Your task to perform on an android device: install app "Expedia: Hotels, Flights & Car" Image 0: 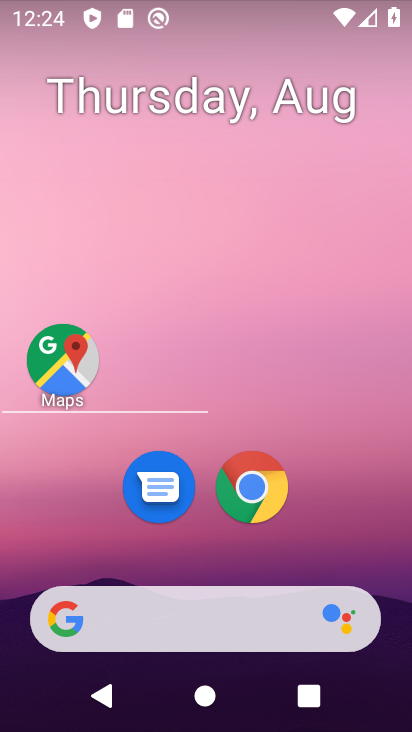
Step 0: drag from (211, 12) to (269, 6)
Your task to perform on an android device: install app "Expedia: Hotels, Flights & Car" Image 1: 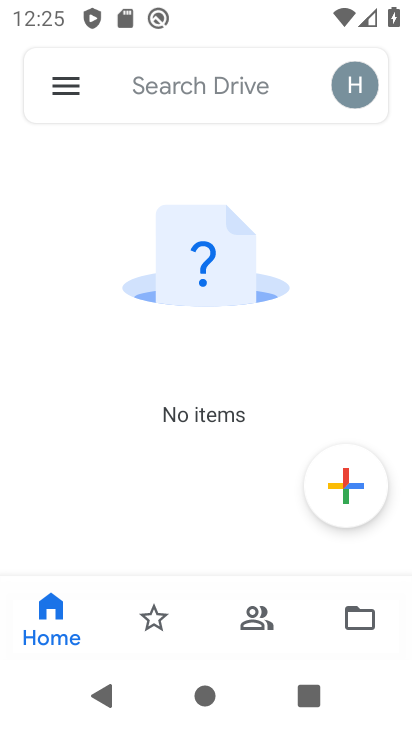
Step 1: press home button
Your task to perform on an android device: install app "Expedia: Hotels, Flights & Car" Image 2: 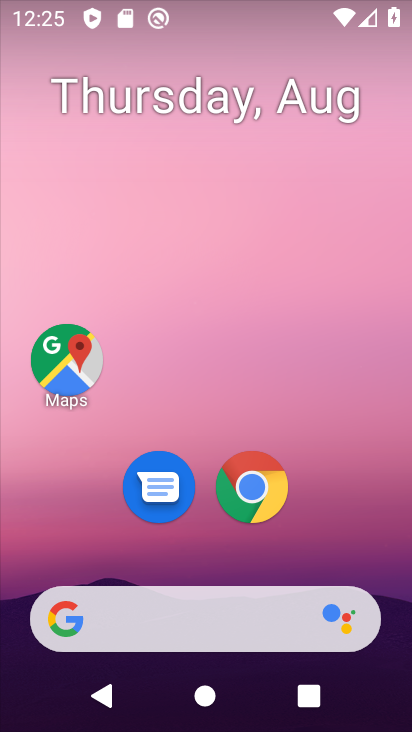
Step 2: drag from (205, 564) to (234, 0)
Your task to perform on an android device: install app "Expedia: Hotels, Flights & Car" Image 3: 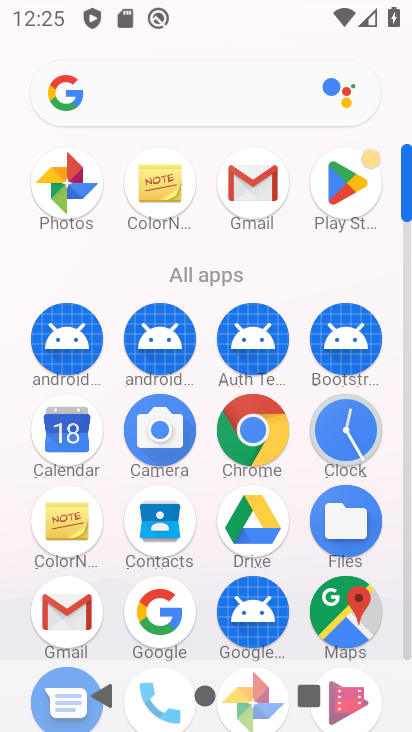
Step 3: click (347, 182)
Your task to perform on an android device: install app "Expedia: Hotels, Flights & Car" Image 4: 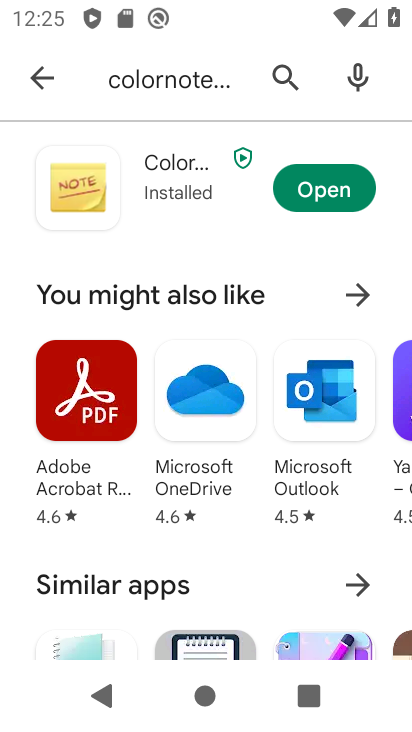
Step 4: click (275, 71)
Your task to perform on an android device: install app "Expedia: Hotels, Flights & Car" Image 5: 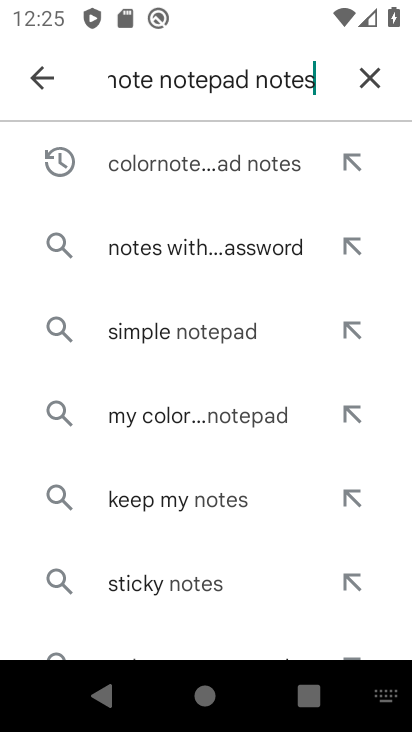
Step 5: click (195, 166)
Your task to perform on an android device: install app "Expedia: Hotels, Flights & Car" Image 6: 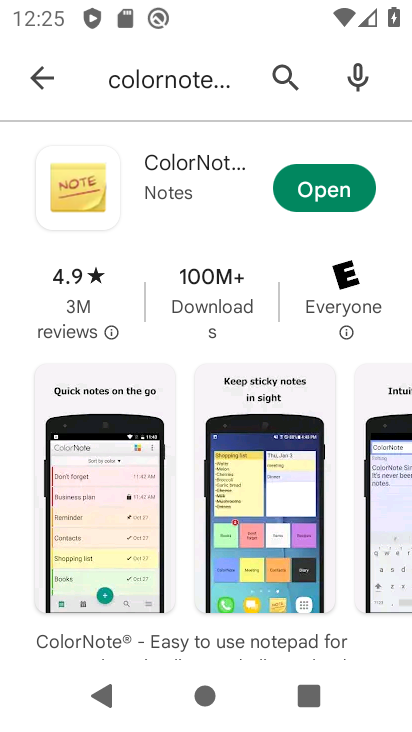
Step 6: click (296, 69)
Your task to perform on an android device: install app "Expedia: Hotels, Flights & Car" Image 7: 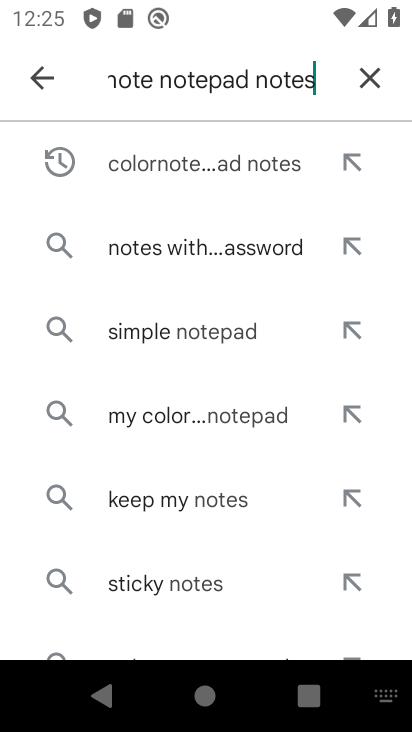
Step 7: click (358, 91)
Your task to perform on an android device: install app "Expedia: Hotels, Flights & Car" Image 8: 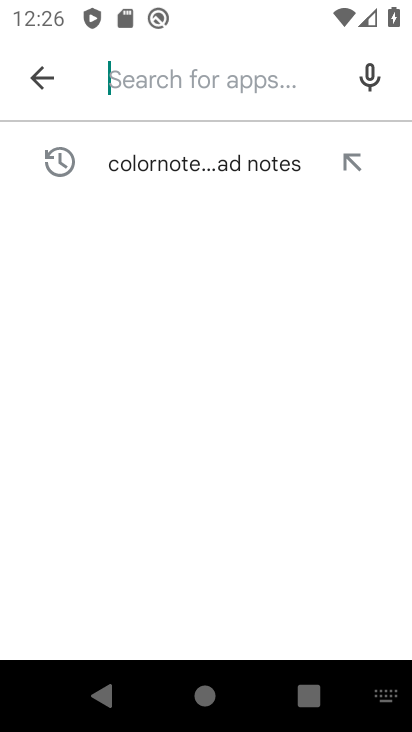
Step 8: type "Expedia: Hotels, Flights & Car"
Your task to perform on an android device: install app "Expedia: Hotels, Flights & Car" Image 9: 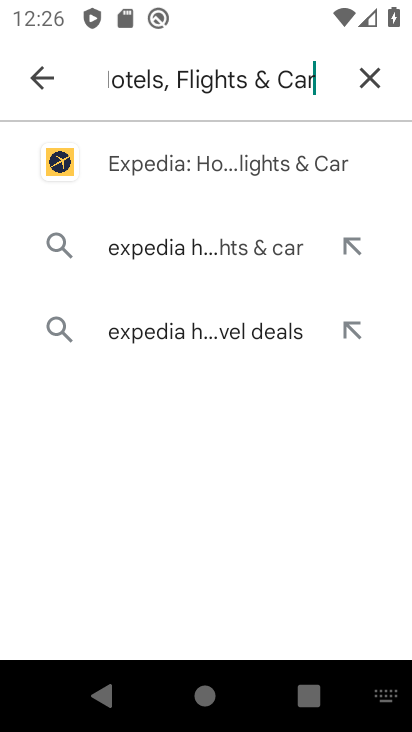
Step 9: click (218, 162)
Your task to perform on an android device: install app "Expedia: Hotels, Flights & Car" Image 10: 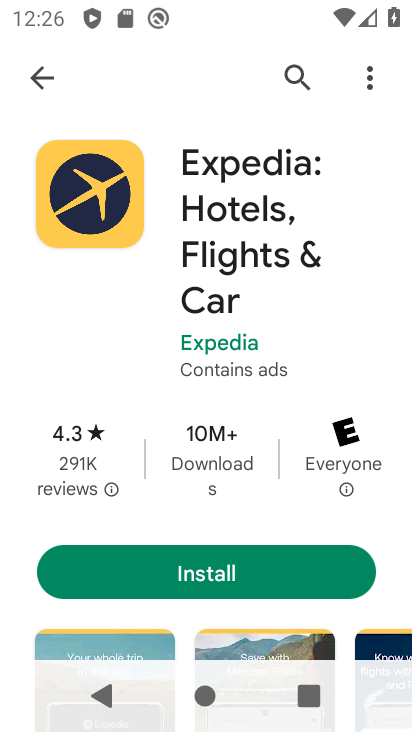
Step 10: click (214, 574)
Your task to perform on an android device: install app "Expedia: Hotels, Flights & Car" Image 11: 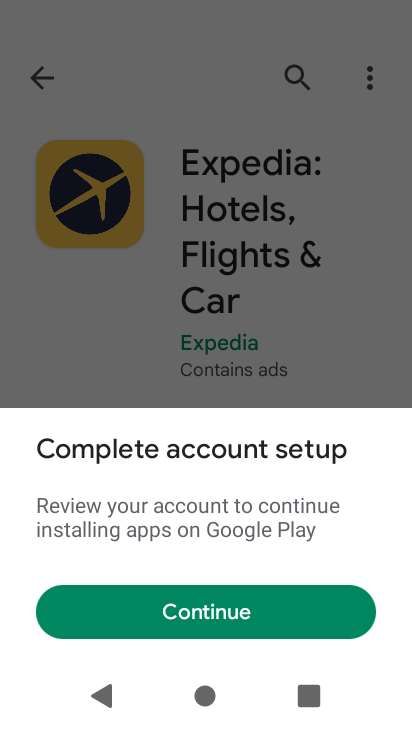
Step 11: click (211, 620)
Your task to perform on an android device: install app "Expedia: Hotels, Flights & Car" Image 12: 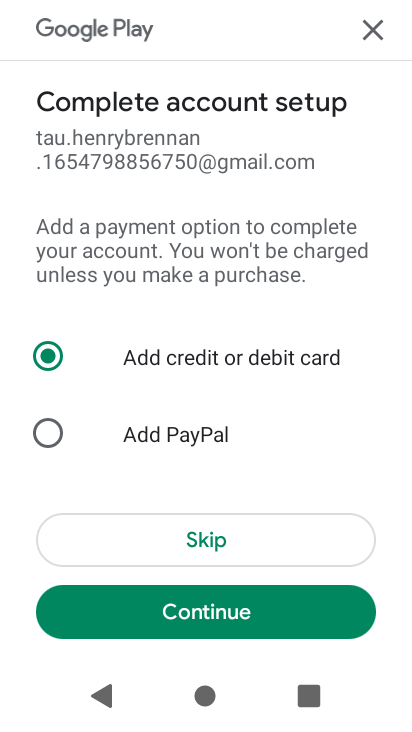
Step 12: click (207, 542)
Your task to perform on an android device: install app "Expedia: Hotels, Flights & Car" Image 13: 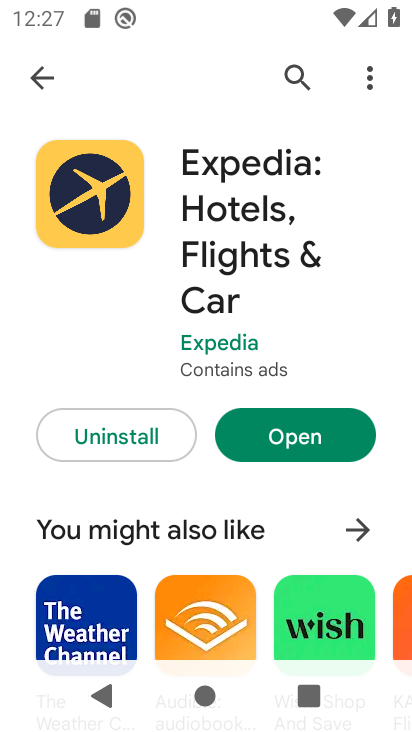
Step 13: click (252, 443)
Your task to perform on an android device: install app "Expedia: Hotels, Flights & Car" Image 14: 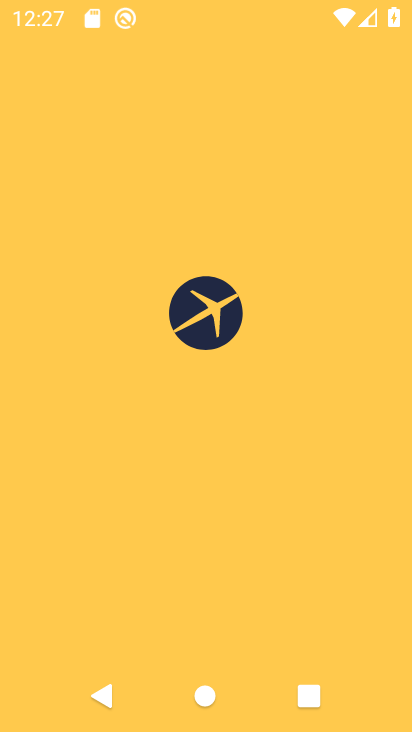
Step 14: task complete